Your task to perform on an android device: Open Google Image 0: 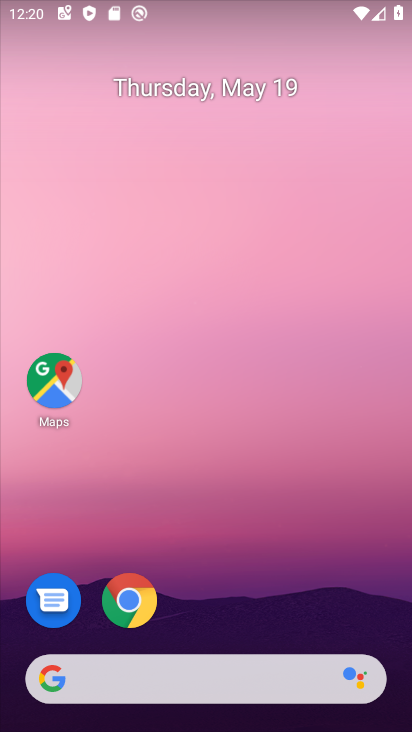
Step 0: drag from (293, 584) to (268, 76)
Your task to perform on an android device: Open Google Image 1: 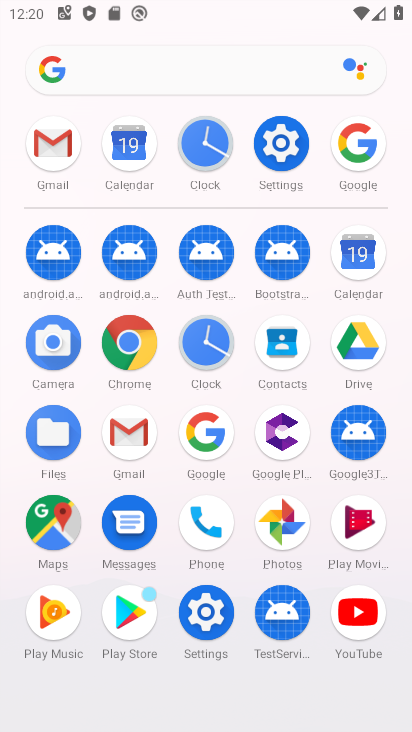
Step 1: click (199, 439)
Your task to perform on an android device: Open Google Image 2: 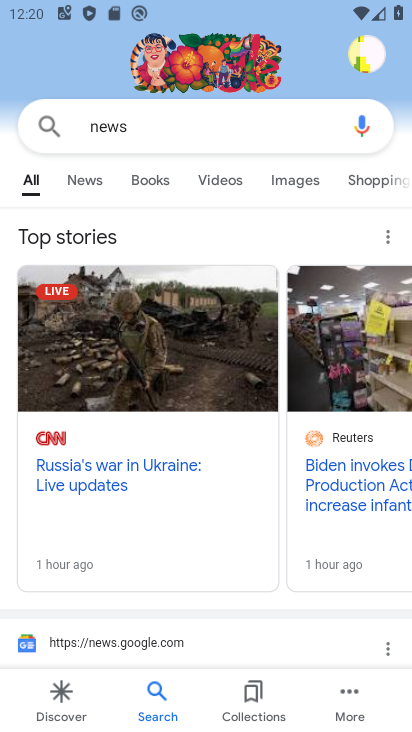
Step 2: task complete